Your task to perform on an android device: Go to notification settings Image 0: 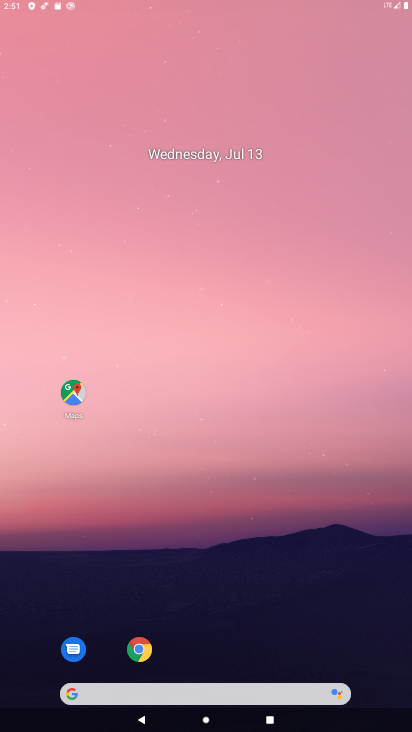
Step 0: press home button
Your task to perform on an android device: Go to notification settings Image 1: 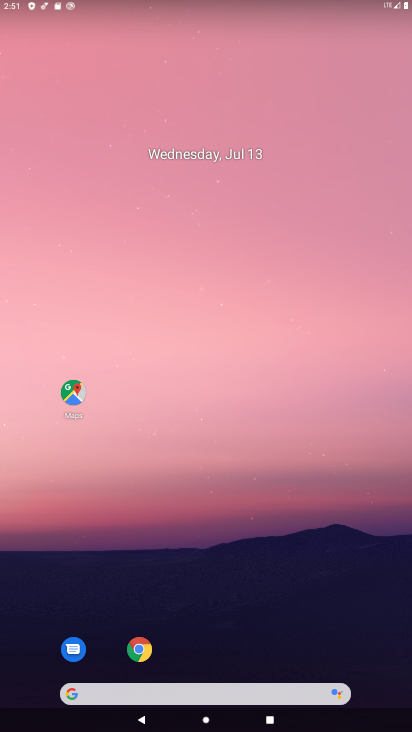
Step 1: drag from (204, 660) to (197, 24)
Your task to perform on an android device: Go to notification settings Image 2: 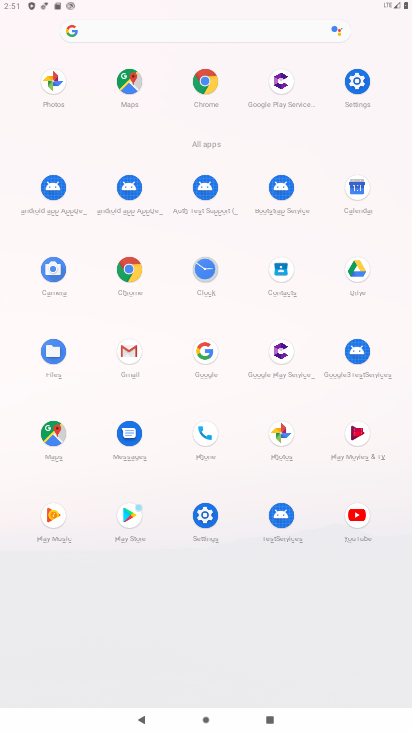
Step 2: click (357, 78)
Your task to perform on an android device: Go to notification settings Image 3: 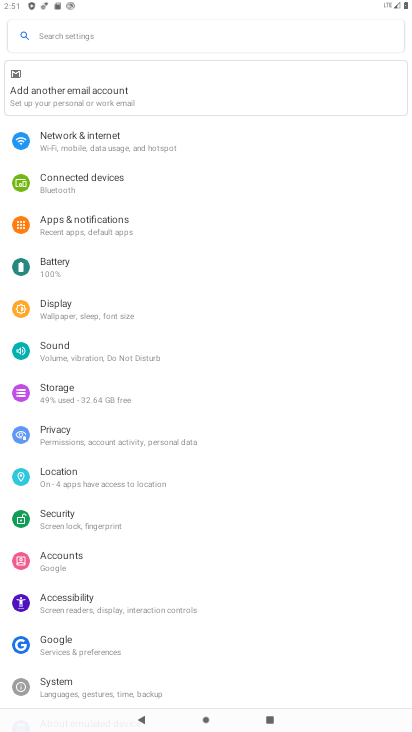
Step 3: click (139, 221)
Your task to perform on an android device: Go to notification settings Image 4: 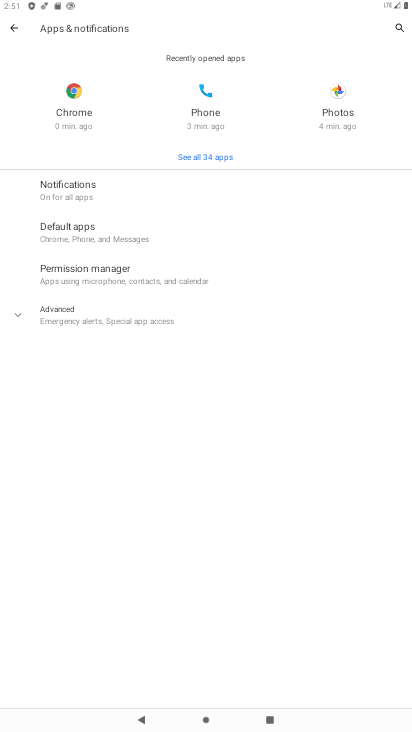
Step 4: click (108, 188)
Your task to perform on an android device: Go to notification settings Image 5: 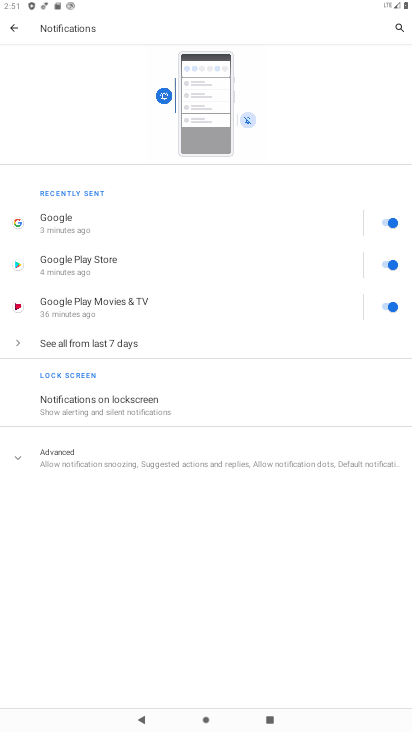
Step 5: click (19, 456)
Your task to perform on an android device: Go to notification settings Image 6: 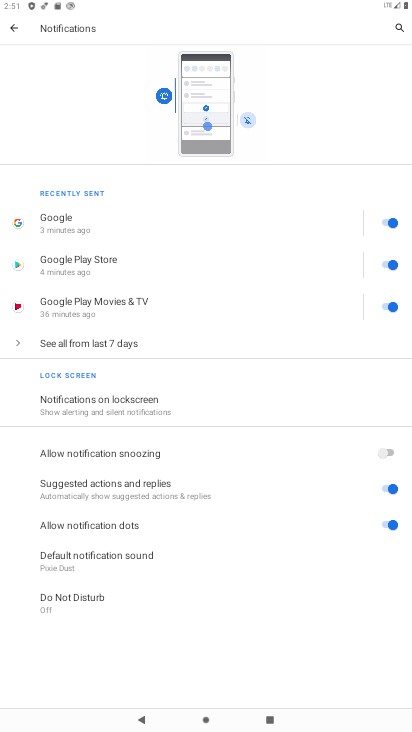
Step 6: task complete